Your task to perform on an android device: find photos in the google photos app Image 0: 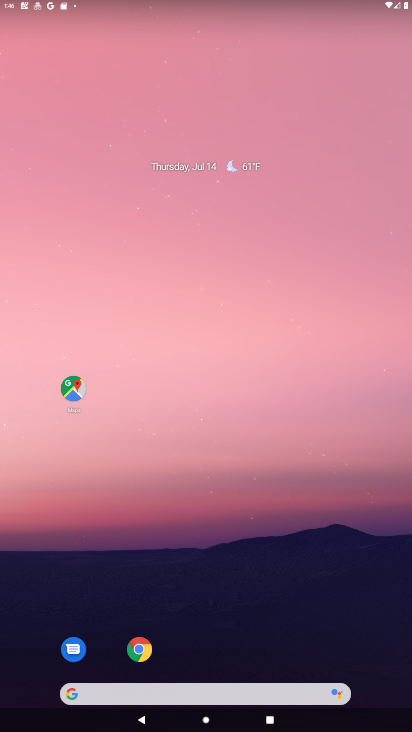
Step 0: drag from (294, 703) to (250, 18)
Your task to perform on an android device: find photos in the google photos app Image 1: 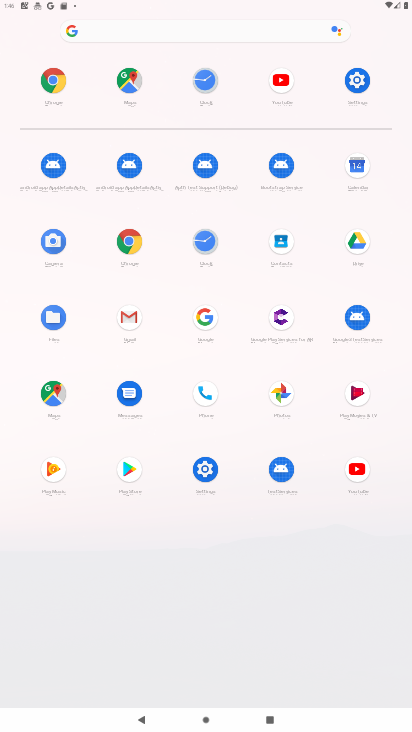
Step 1: click (288, 387)
Your task to perform on an android device: find photos in the google photos app Image 2: 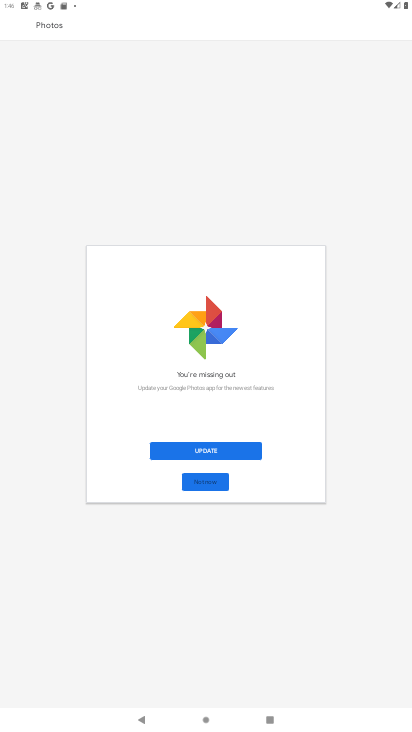
Step 2: click (231, 451)
Your task to perform on an android device: find photos in the google photos app Image 3: 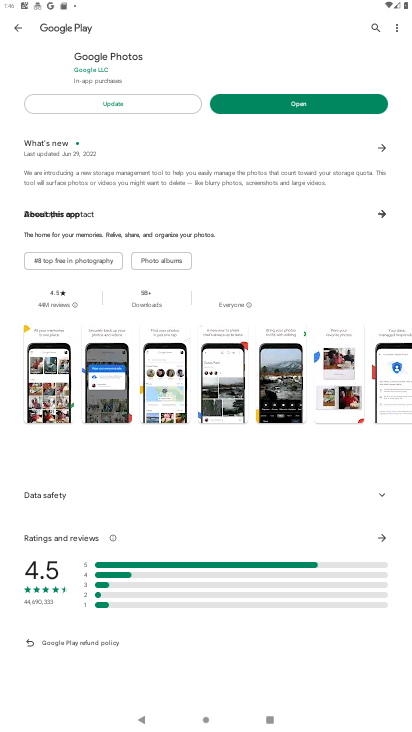
Step 3: click (94, 103)
Your task to perform on an android device: find photos in the google photos app Image 4: 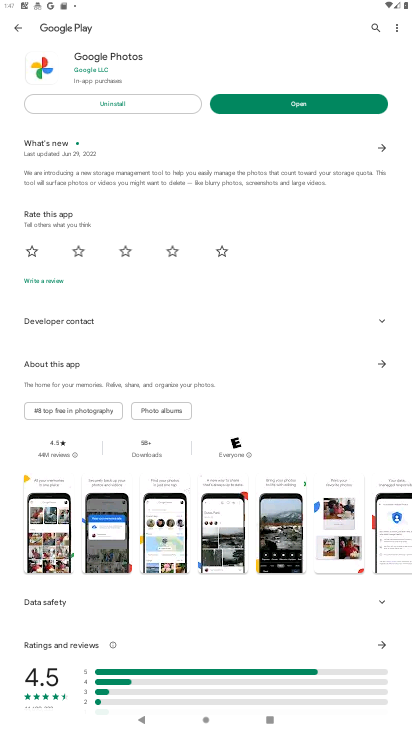
Step 4: click (289, 109)
Your task to perform on an android device: find photos in the google photos app Image 5: 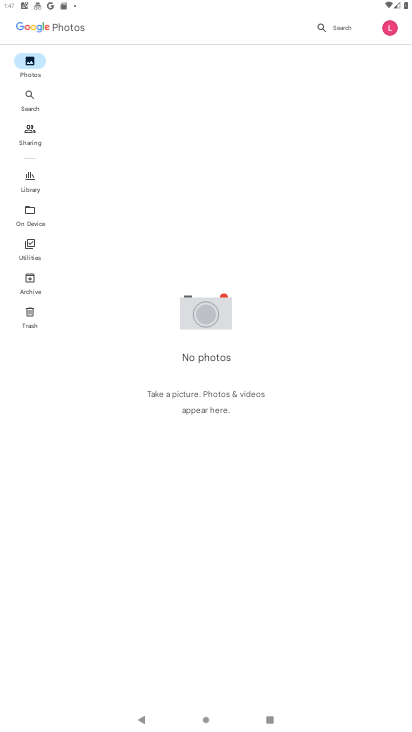
Step 5: task complete